Your task to perform on an android device: check battery use Image 0: 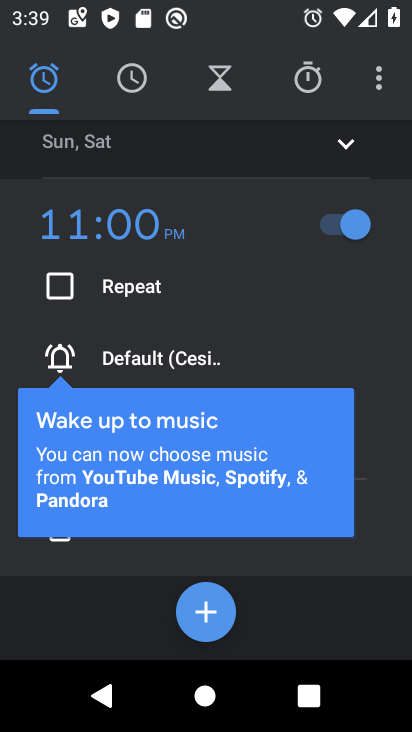
Step 0: press home button
Your task to perform on an android device: check battery use Image 1: 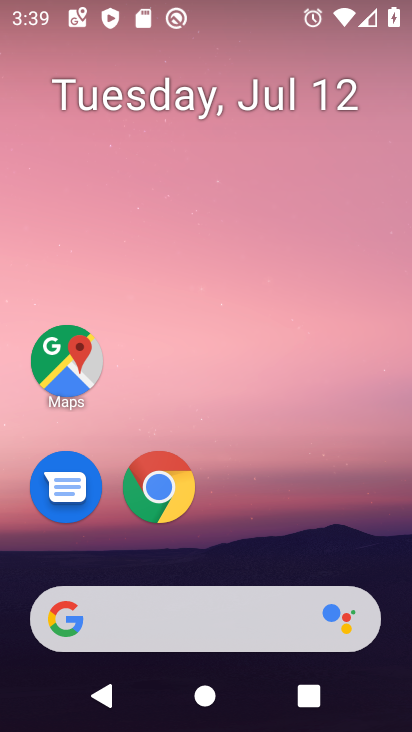
Step 1: drag from (130, 588) to (195, 139)
Your task to perform on an android device: check battery use Image 2: 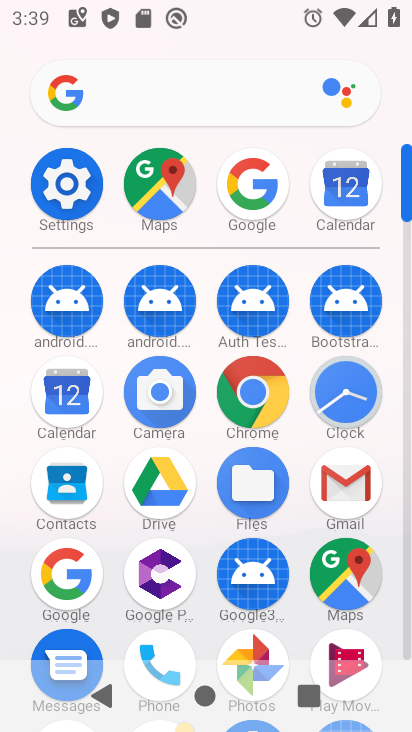
Step 2: click (77, 187)
Your task to perform on an android device: check battery use Image 3: 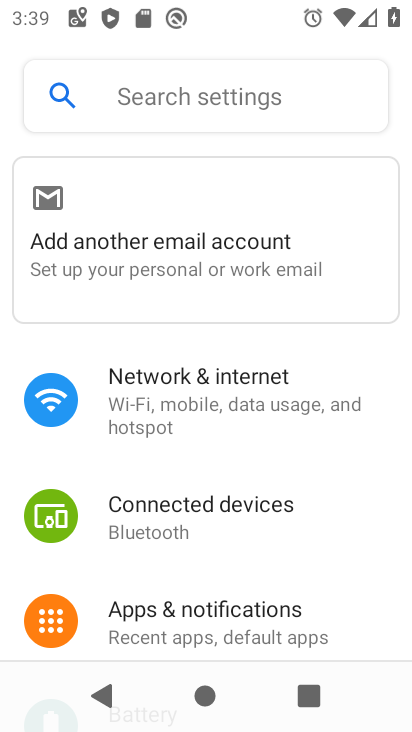
Step 3: drag from (179, 599) to (179, 258)
Your task to perform on an android device: check battery use Image 4: 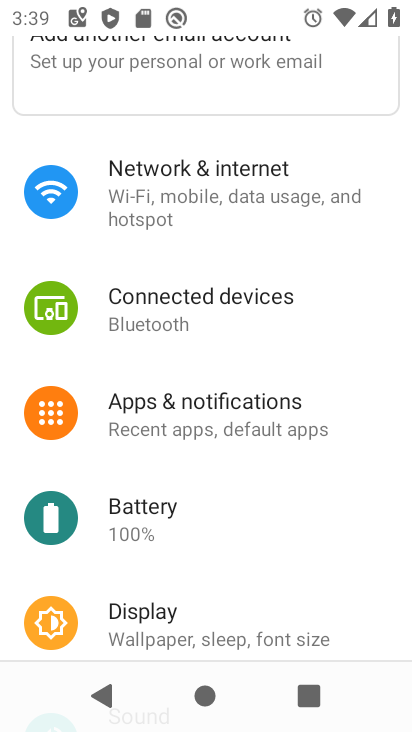
Step 4: click (157, 513)
Your task to perform on an android device: check battery use Image 5: 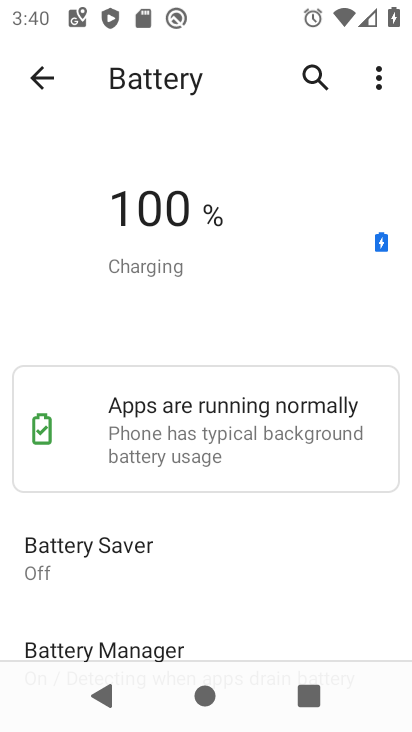
Step 5: drag from (116, 625) to (153, 335)
Your task to perform on an android device: check battery use Image 6: 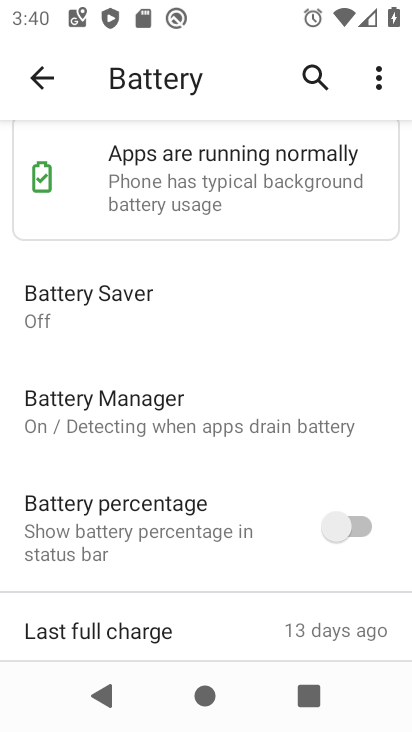
Step 6: click (381, 76)
Your task to perform on an android device: check battery use Image 7: 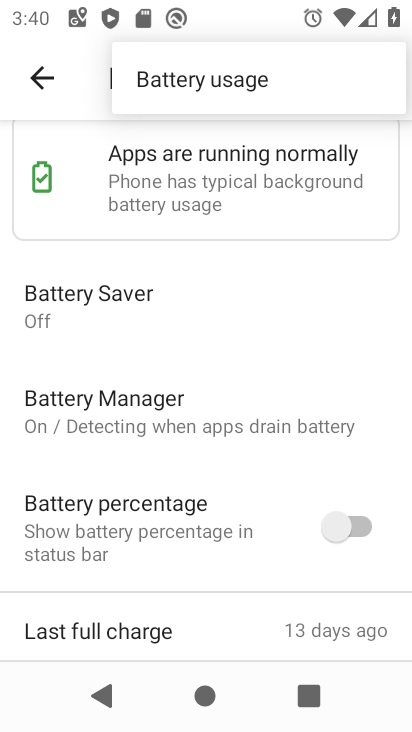
Step 7: click (273, 78)
Your task to perform on an android device: check battery use Image 8: 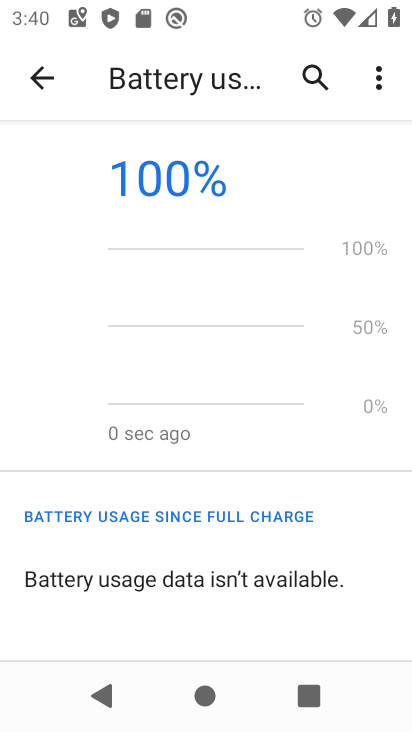
Step 8: task complete